Your task to perform on an android device: find which apps use the phone's location Image 0: 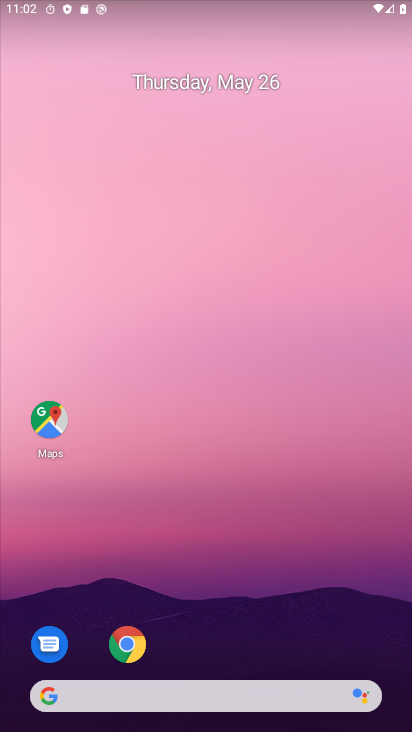
Step 0: drag from (122, 696) to (113, 56)
Your task to perform on an android device: find which apps use the phone's location Image 1: 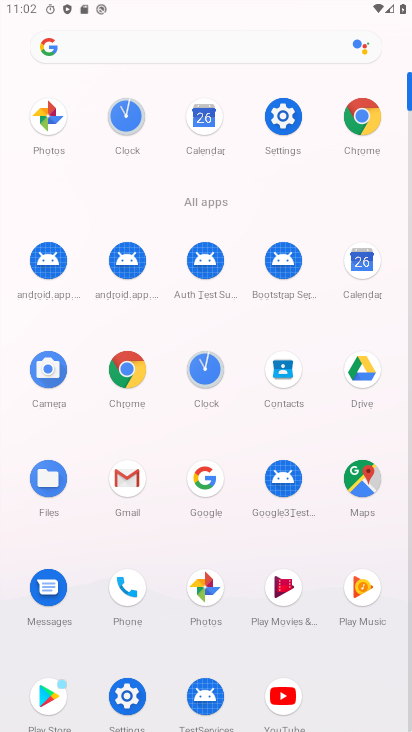
Step 1: click (285, 115)
Your task to perform on an android device: find which apps use the phone's location Image 2: 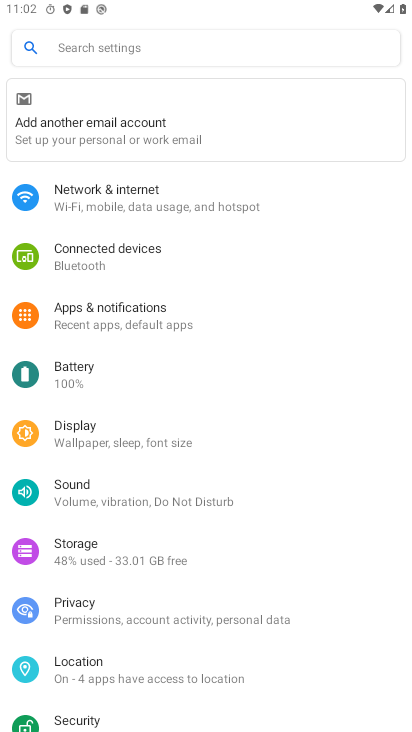
Step 2: click (161, 663)
Your task to perform on an android device: find which apps use the phone's location Image 3: 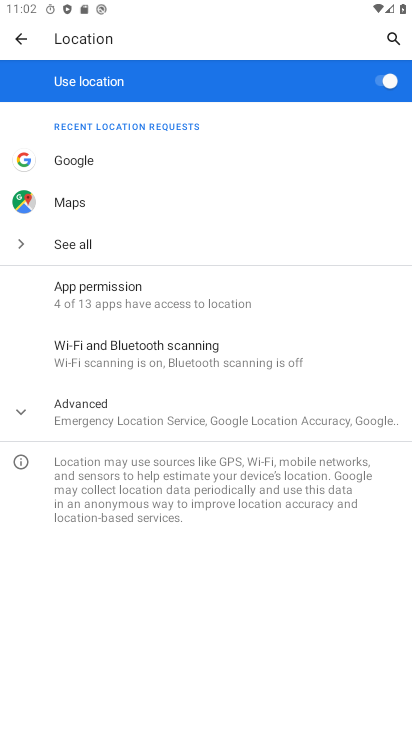
Step 3: click (179, 294)
Your task to perform on an android device: find which apps use the phone's location Image 4: 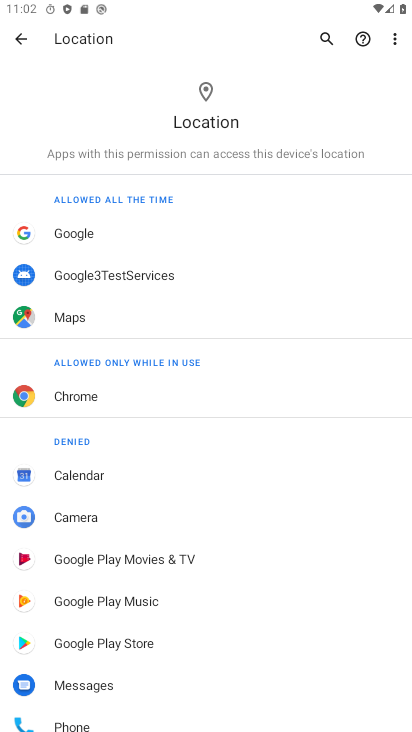
Step 4: task complete